Your task to perform on an android device: Open internet settings Image 0: 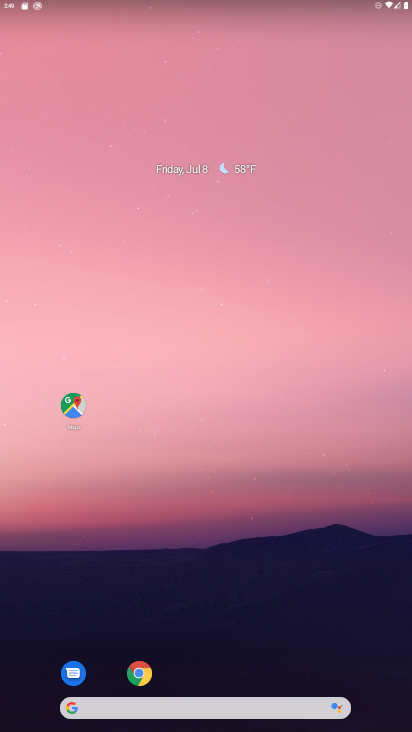
Step 0: drag from (188, 670) to (199, 230)
Your task to perform on an android device: Open internet settings Image 1: 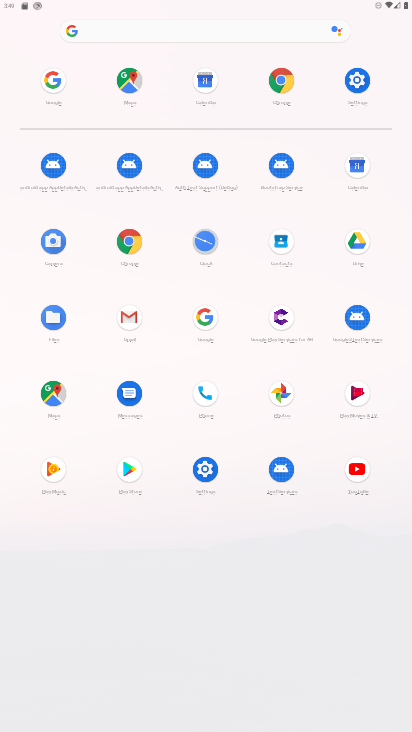
Step 1: click (361, 83)
Your task to perform on an android device: Open internet settings Image 2: 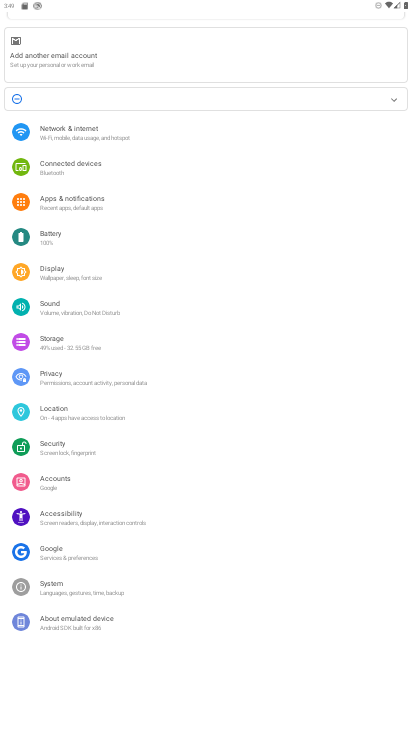
Step 2: click (64, 128)
Your task to perform on an android device: Open internet settings Image 3: 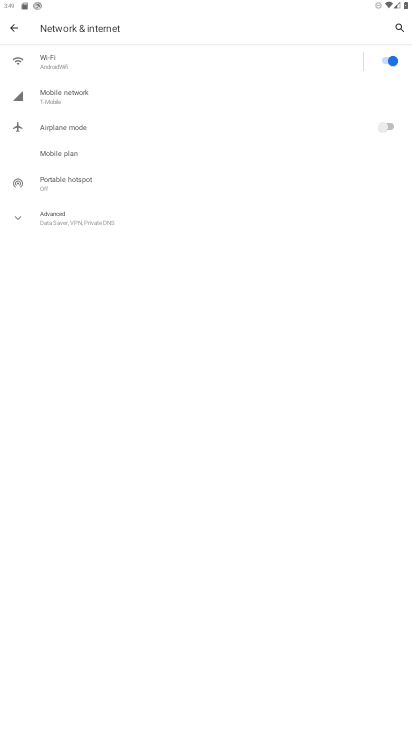
Step 3: click (88, 217)
Your task to perform on an android device: Open internet settings Image 4: 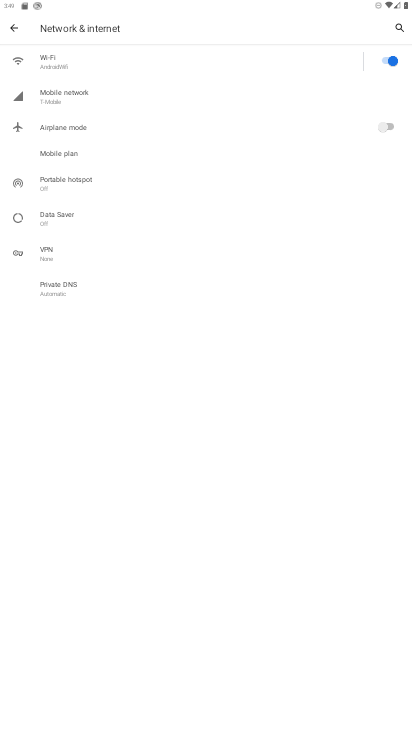
Step 4: task complete